Your task to perform on an android device: Open calendar and show me the fourth week of next month Image 0: 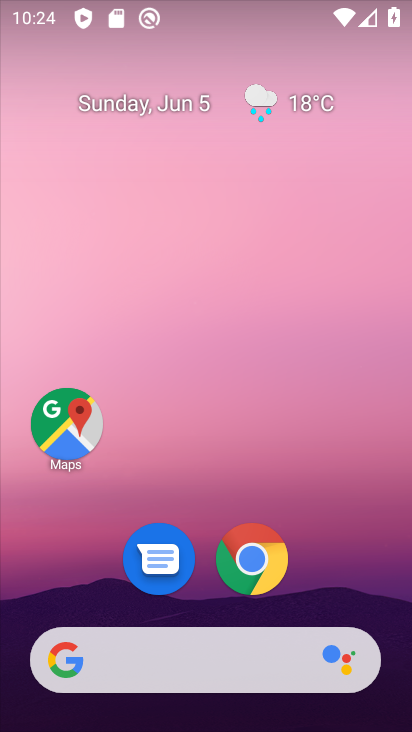
Step 0: drag from (213, 623) to (149, 178)
Your task to perform on an android device: Open calendar and show me the fourth week of next month Image 1: 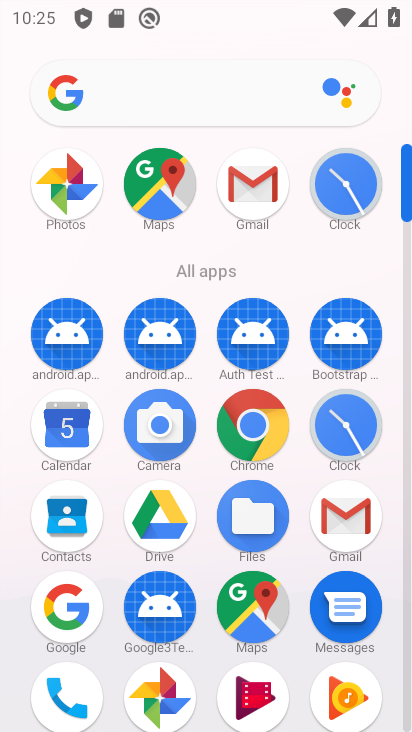
Step 1: click (56, 417)
Your task to perform on an android device: Open calendar and show me the fourth week of next month Image 2: 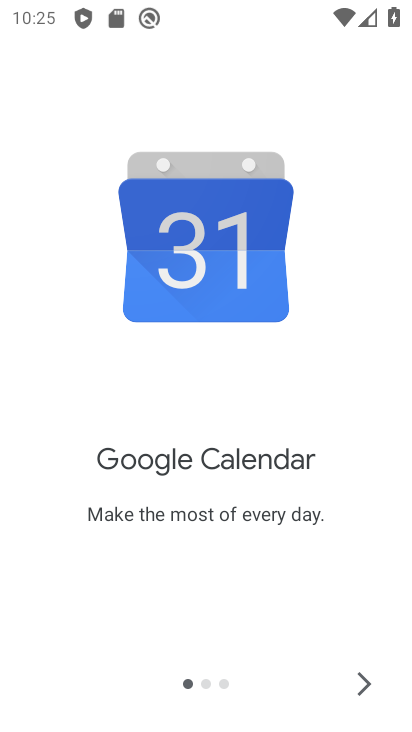
Step 2: click (359, 686)
Your task to perform on an android device: Open calendar and show me the fourth week of next month Image 3: 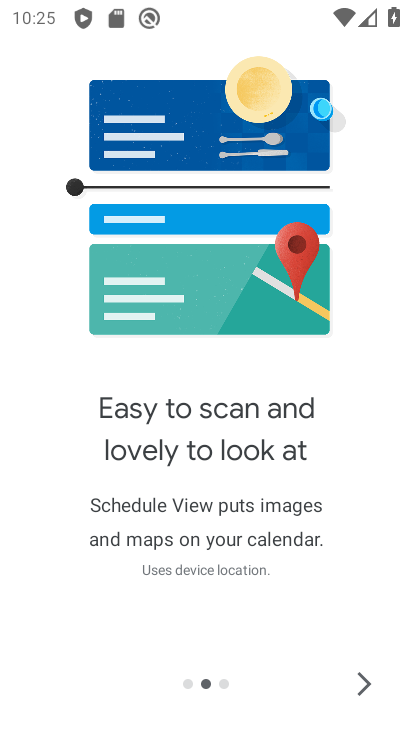
Step 3: click (357, 671)
Your task to perform on an android device: Open calendar and show me the fourth week of next month Image 4: 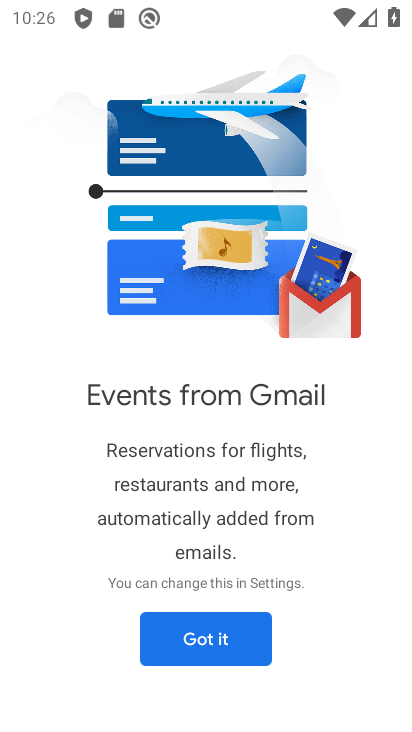
Step 4: click (188, 633)
Your task to perform on an android device: Open calendar and show me the fourth week of next month Image 5: 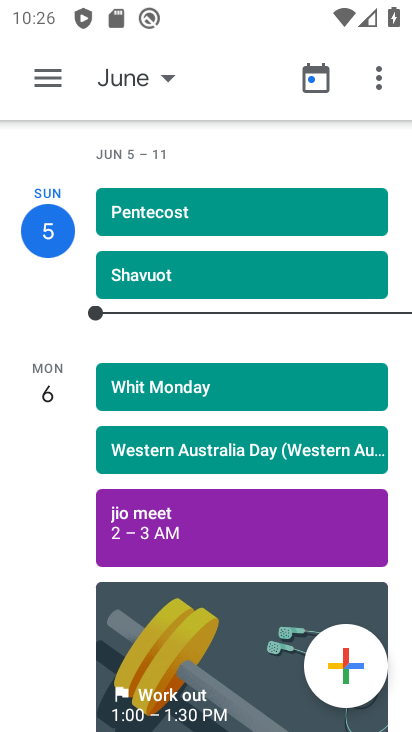
Step 5: click (38, 67)
Your task to perform on an android device: Open calendar and show me the fourth week of next month Image 6: 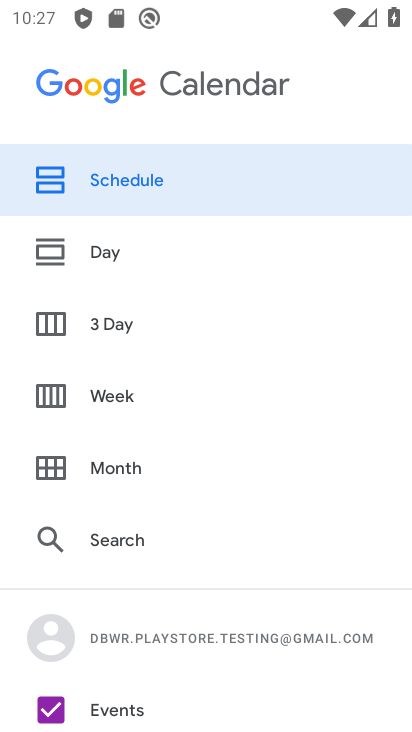
Step 6: click (140, 381)
Your task to perform on an android device: Open calendar and show me the fourth week of next month Image 7: 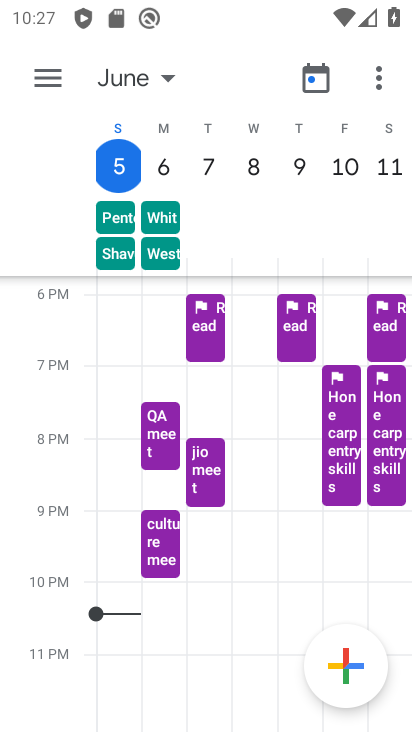
Step 7: task complete